Your task to perform on an android device: Search for bose soundsport free on target, select the first entry, and add it to the cart. Image 0: 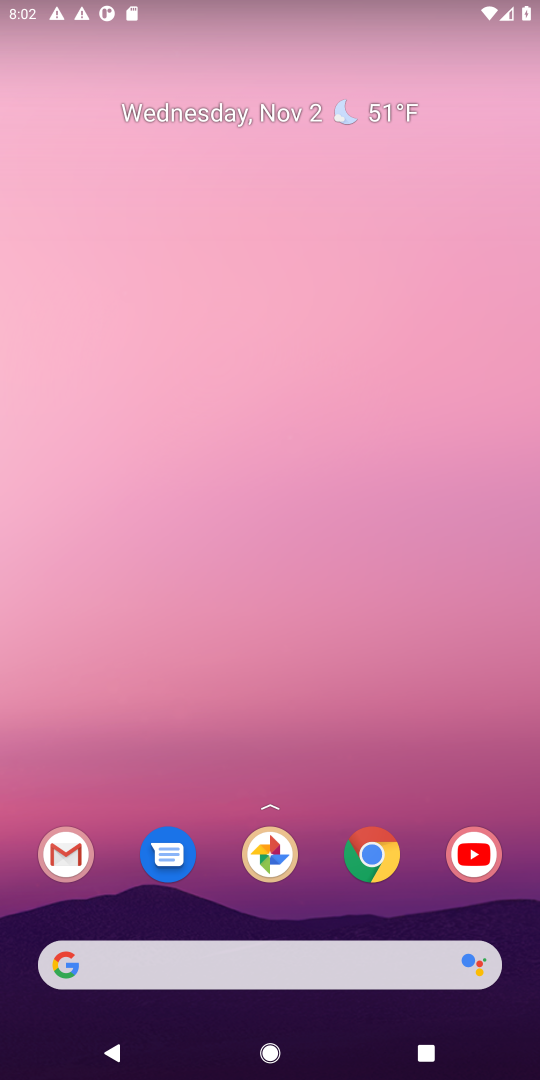
Step 0: click (369, 863)
Your task to perform on an android device: Search for bose soundsport free on target, select the first entry, and add it to the cart. Image 1: 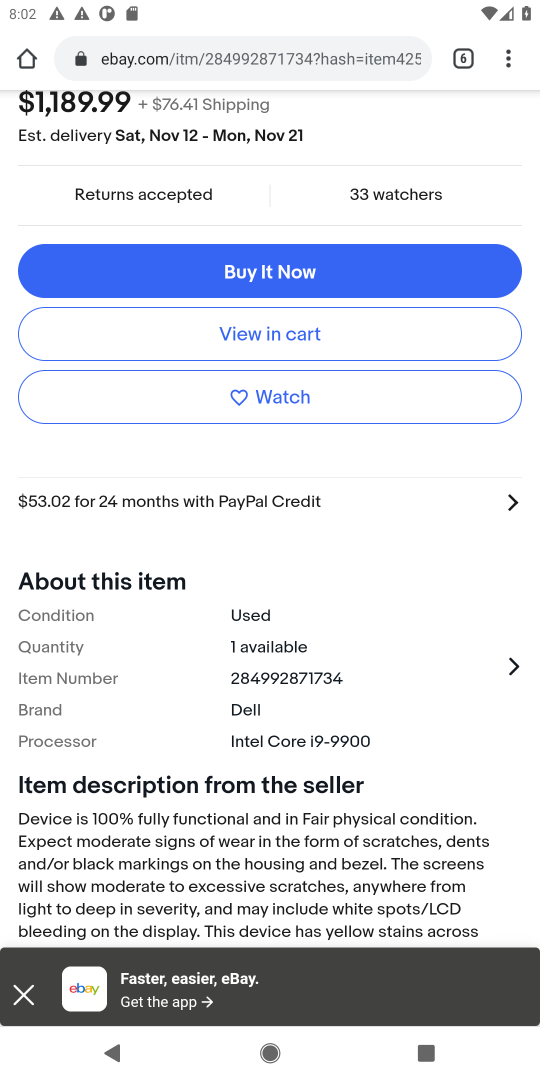
Step 1: click (459, 58)
Your task to perform on an android device: Search for bose soundsport free on target, select the first entry, and add it to the cart. Image 2: 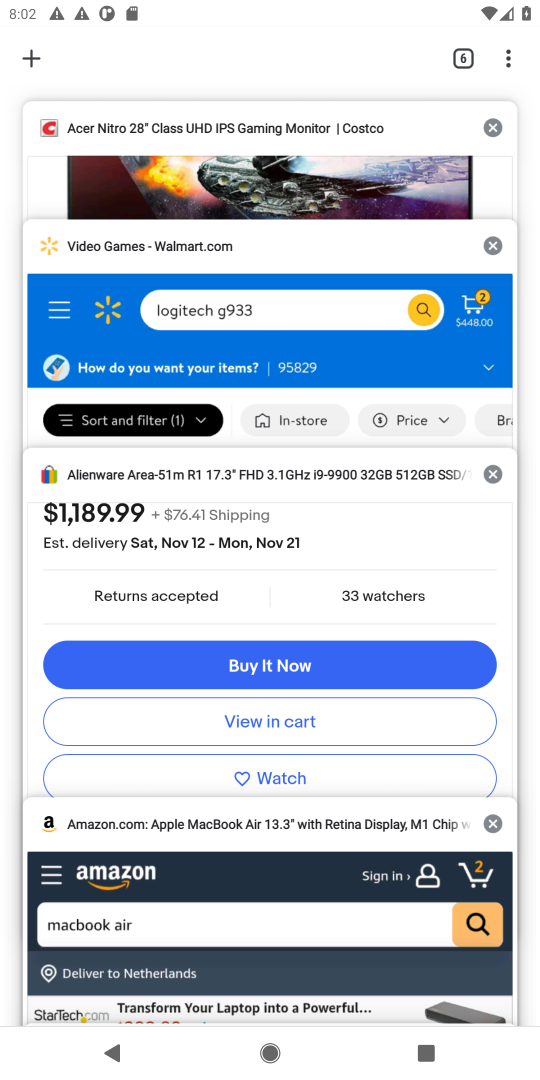
Step 2: drag from (235, 846) to (292, 431)
Your task to perform on an android device: Search for bose soundsport free on target, select the first entry, and add it to the cart. Image 3: 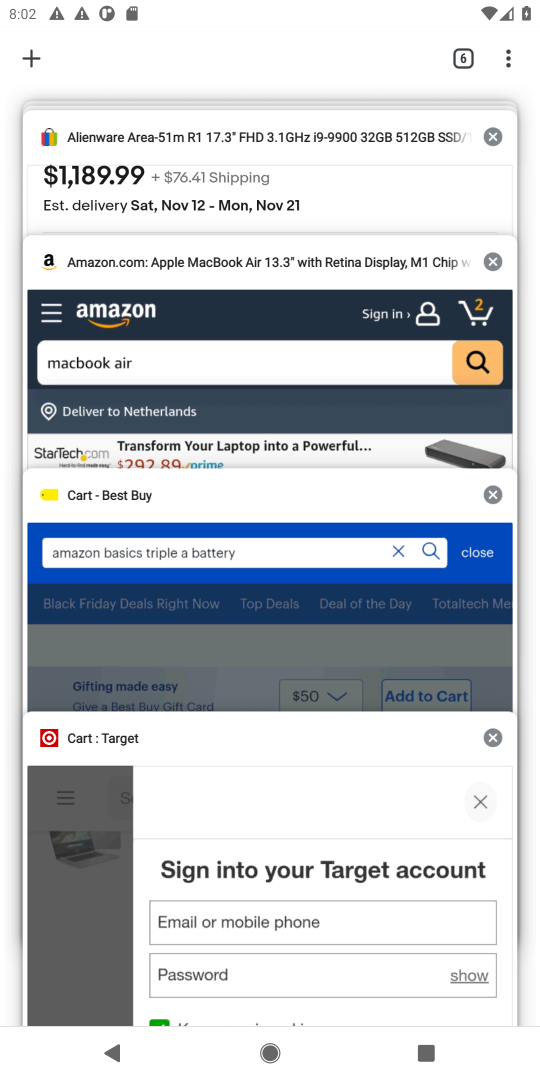
Step 3: click (262, 830)
Your task to perform on an android device: Search for bose soundsport free on target, select the first entry, and add it to the cart. Image 4: 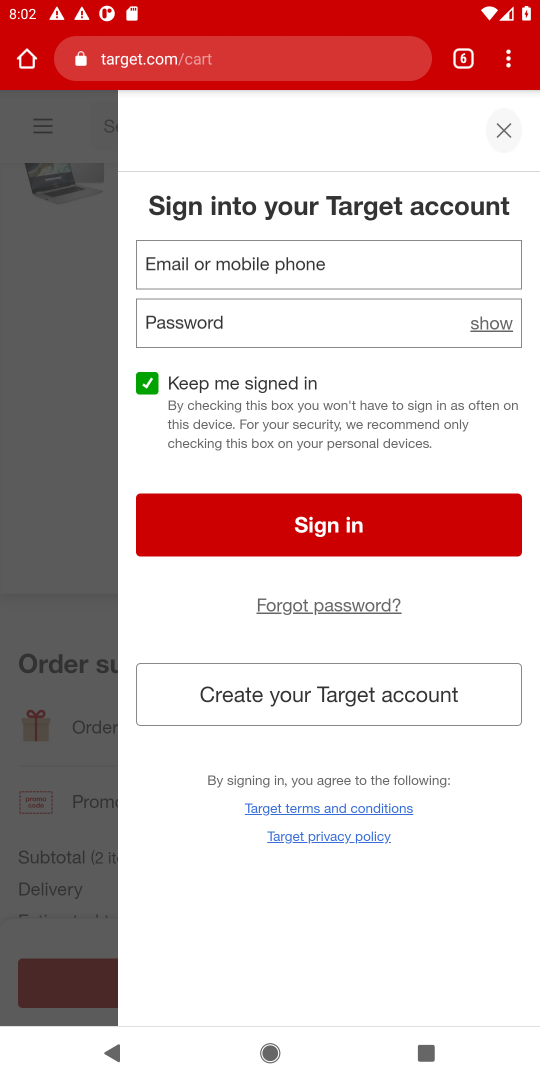
Step 4: click (499, 129)
Your task to perform on an android device: Search for bose soundsport free on target, select the first entry, and add it to the cart. Image 5: 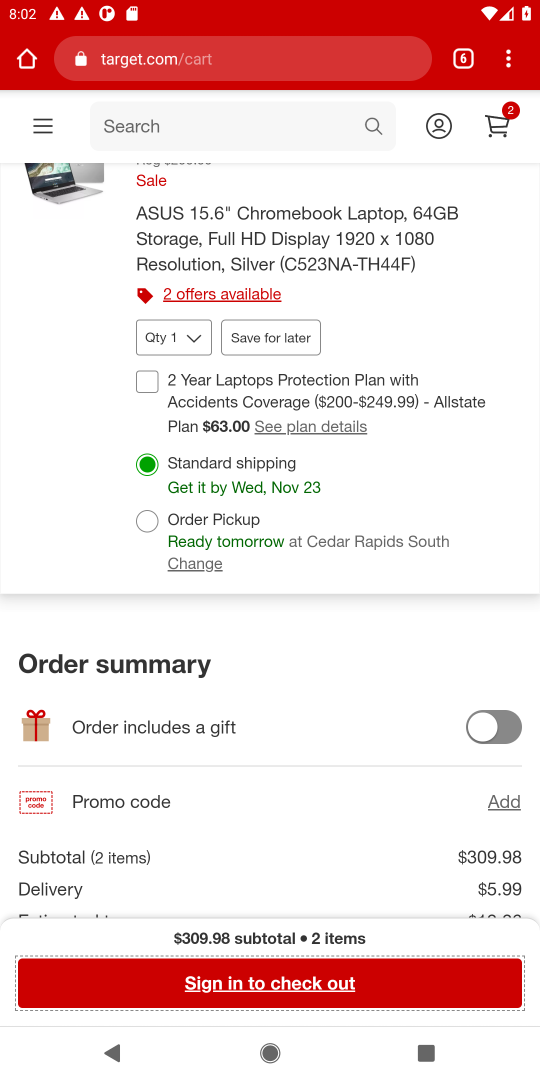
Step 5: click (170, 131)
Your task to perform on an android device: Search for bose soundsport free on target, select the first entry, and add it to the cart. Image 6: 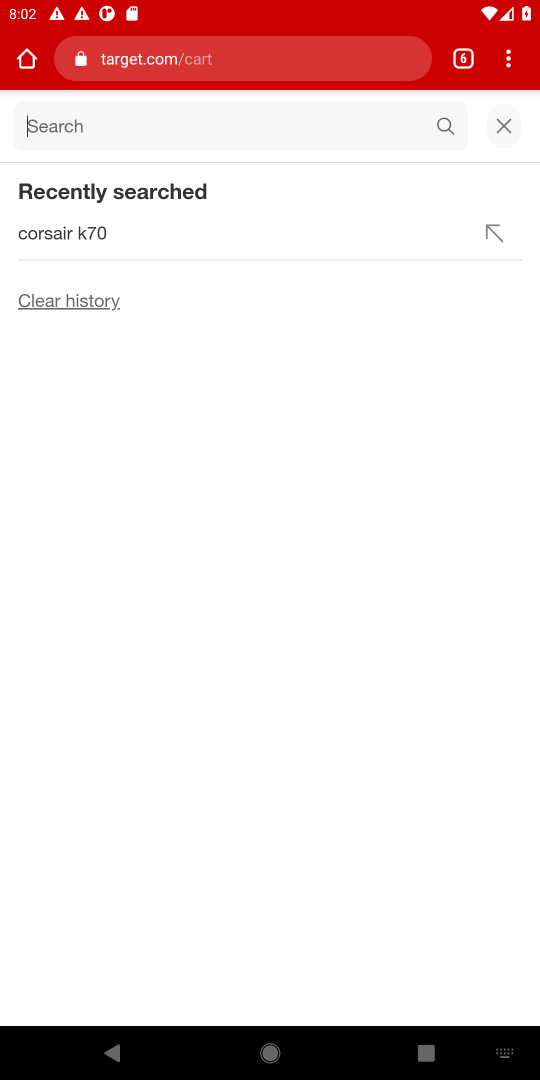
Step 6: type "bose soundsport"
Your task to perform on an android device: Search for bose soundsport free on target, select the first entry, and add it to the cart. Image 7: 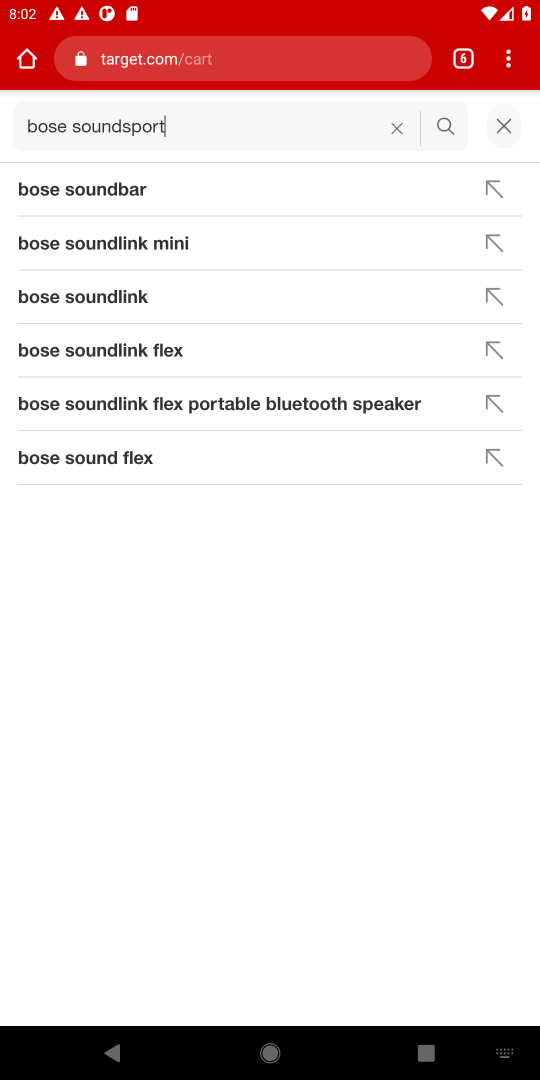
Step 7: click (89, 188)
Your task to perform on an android device: Search for bose soundsport free on target, select the first entry, and add it to the cart. Image 8: 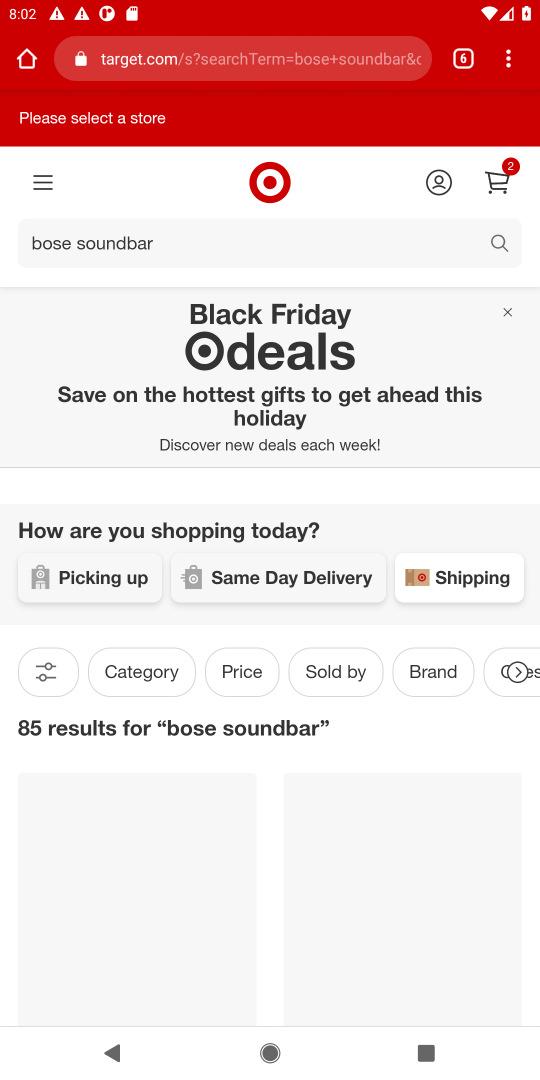
Step 8: drag from (331, 857) to (405, 182)
Your task to perform on an android device: Search for bose soundsport free on target, select the first entry, and add it to the cart. Image 9: 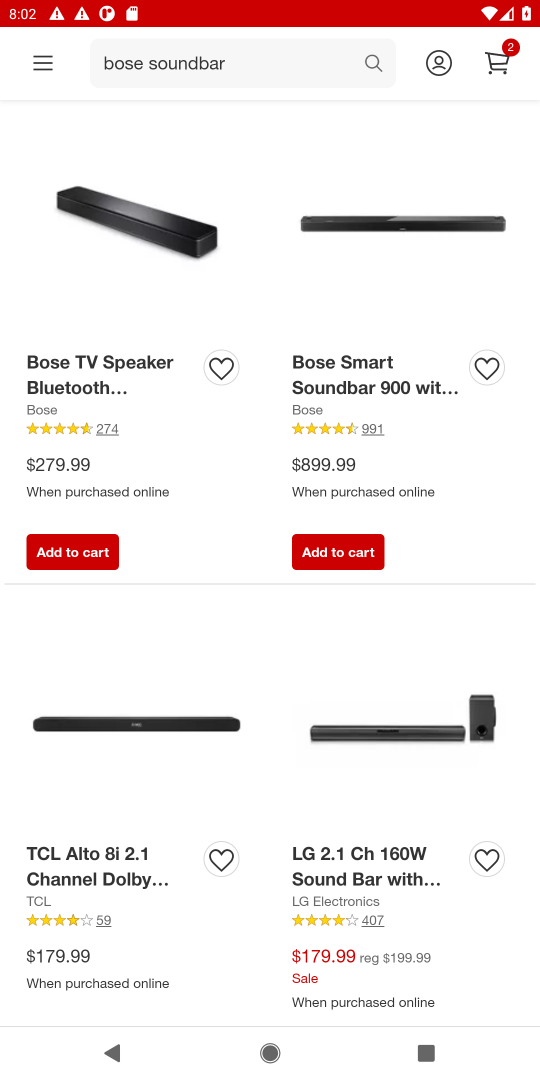
Step 9: click (65, 554)
Your task to perform on an android device: Search for bose soundsport free on target, select the first entry, and add it to the cart. Image 10: 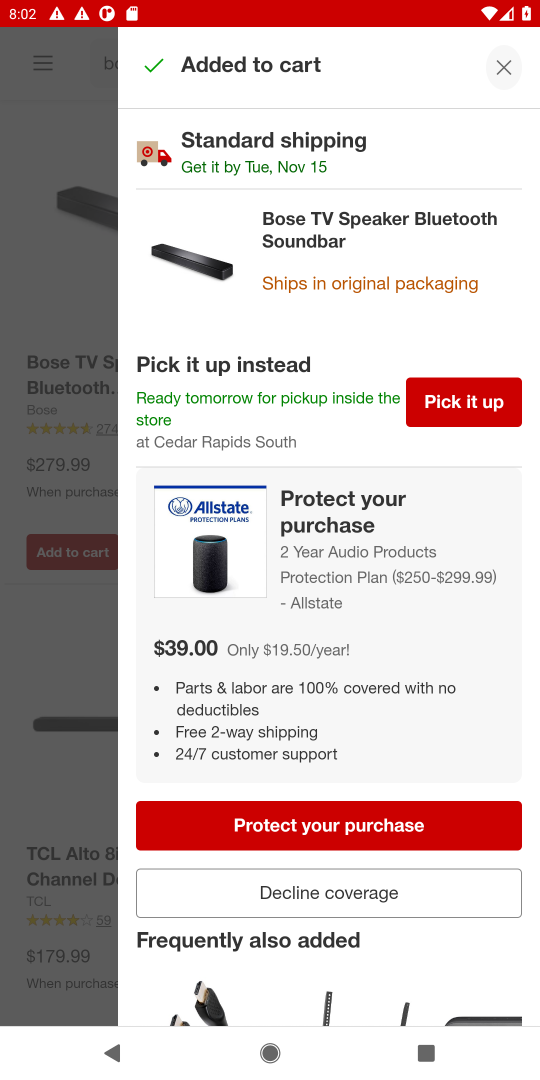
Step 10: click (352, 881)
Your task to perform on an android device: Search for bose soundsport free on target, select the first entry, and add it to the cart. Image 11: 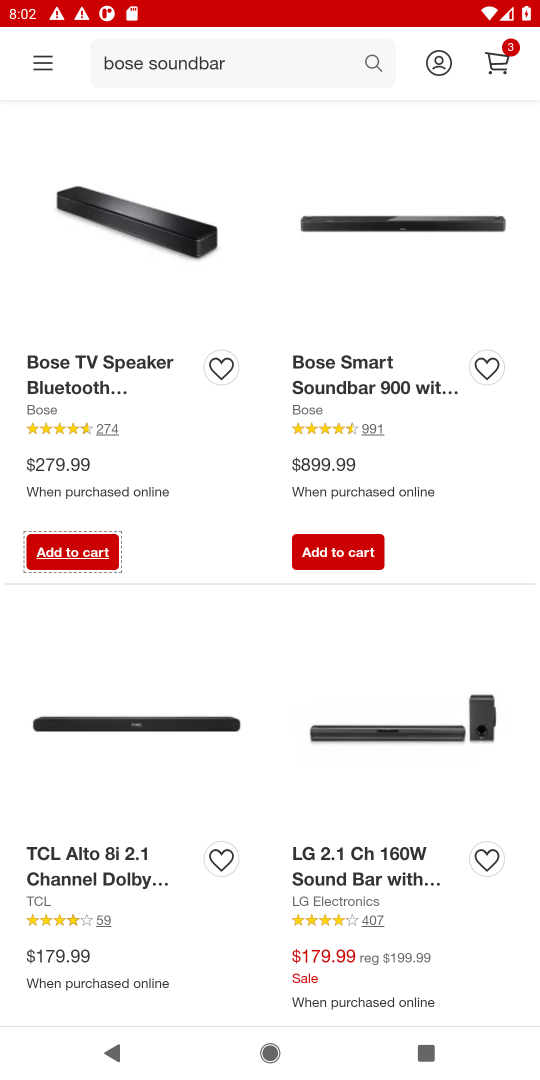
Step 11: task complete